Your task to perform on an android device: change the clock style Image 0: 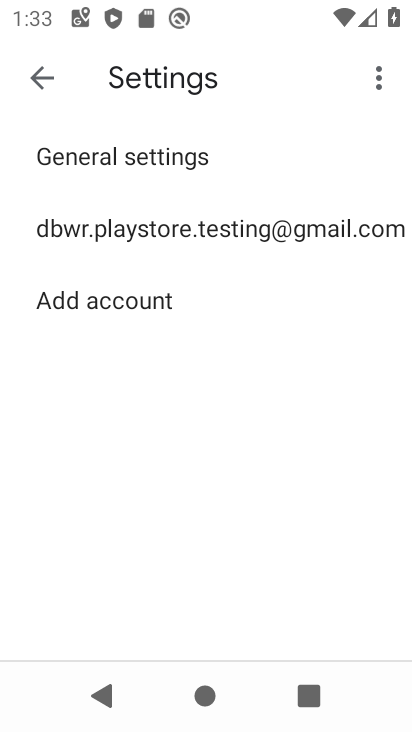
Step 0: press home button
Your task to perform on an android device: change the clock style Image 1: 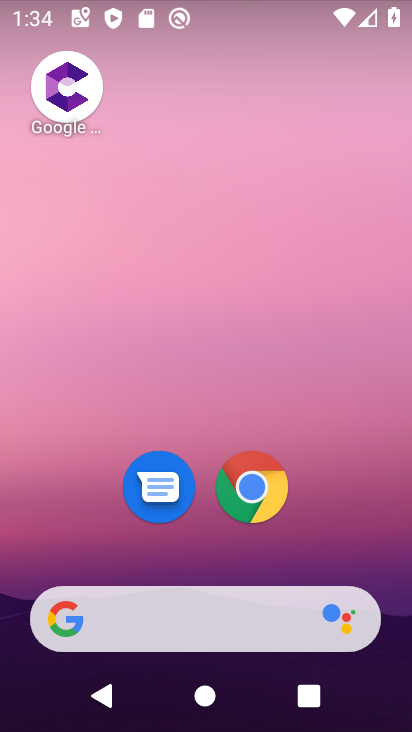
Step 1: drag from (354, 485) to (306, 85)
Your task to perform on an android device: change the clock style Image 2: 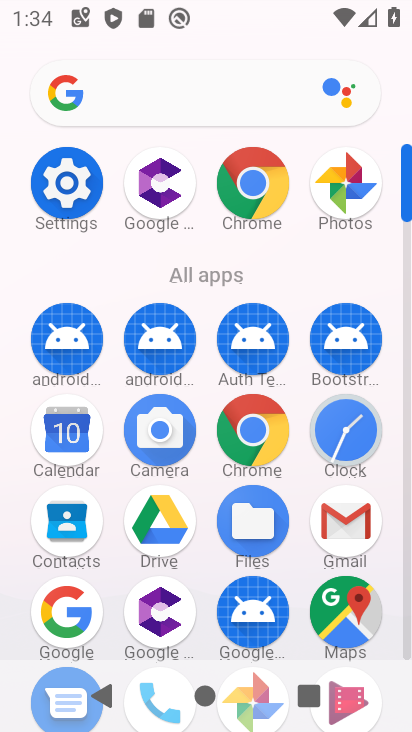
Step 2: click (352, 421)
Your task to perform on an android device: change the clock style Image 3: 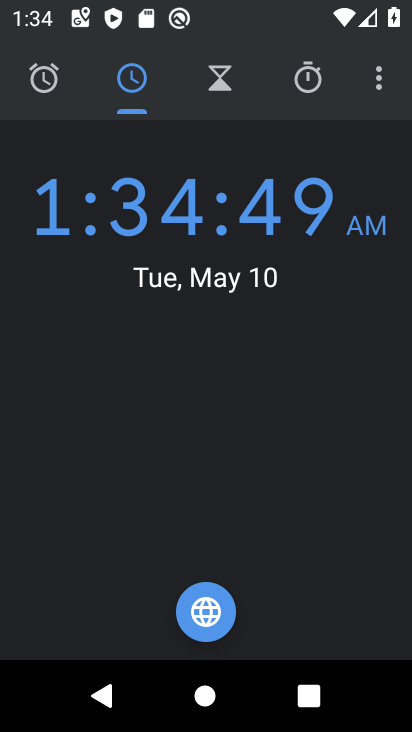
Step 3: click (379, 67)
Your task to perform on an android device: change the clock style Image 4: 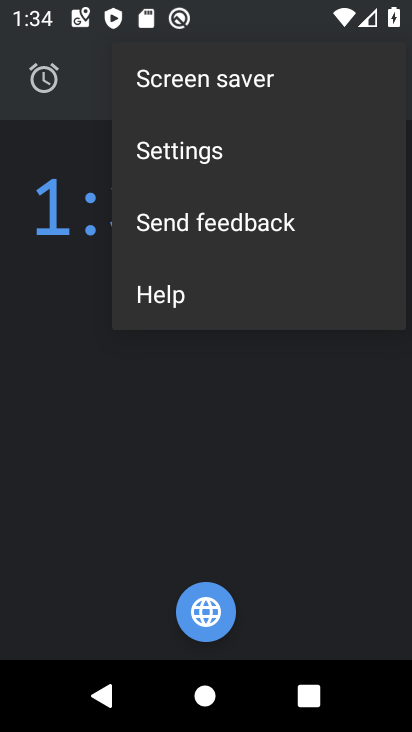
Step 4: click (212, 140)
Your task to perform on an android device: change the clock style Image 5: 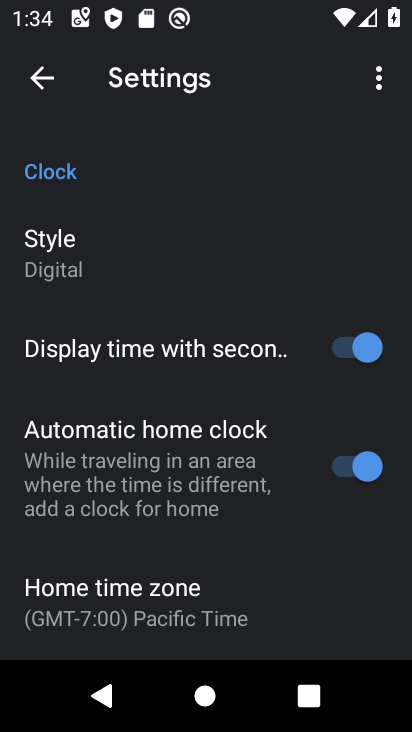
Step 5: click (56, 257)
Your task to perform on an android device: change the clock style Image 6: 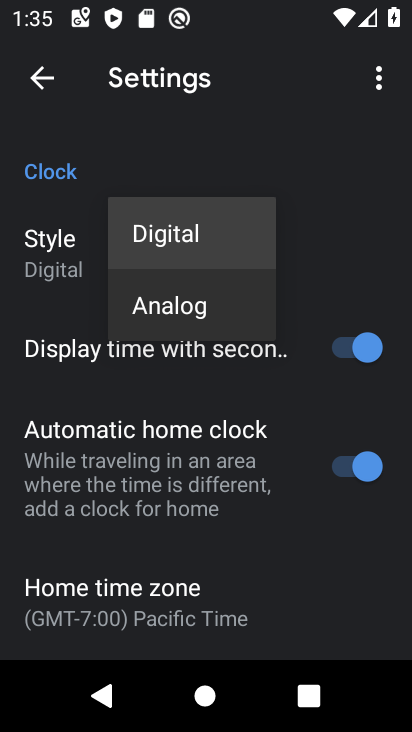
Step 6: click (191, 316)
Your task to perform on an android device: change the clock style Image 7: 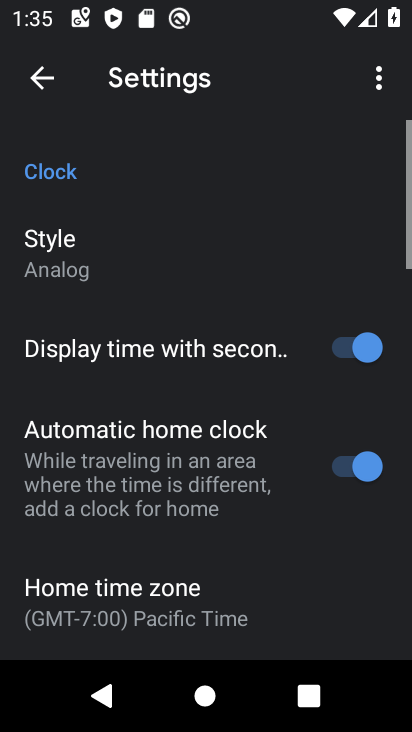
Step 7: task complete